Your task to perform on an android device: change notification settings in the gmail app Image 0: 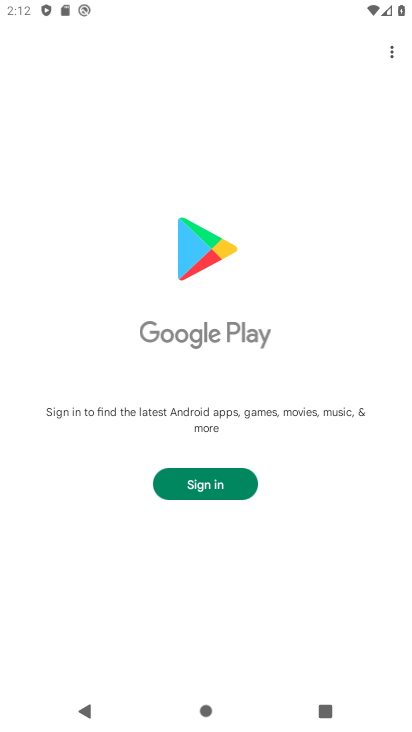
Step 0: press home button
Your task to perform on an android device: change notification settings in the gmail app Image 1: 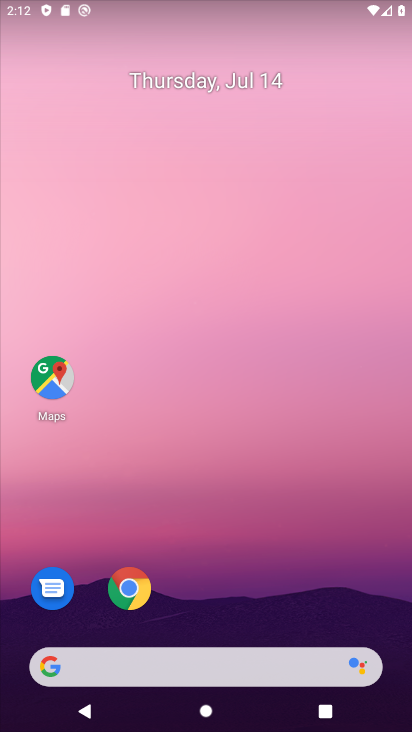
Step 1: drag from (227, 537) to (272, 27)
Your task to perform on an android device: change notification settings in the gmail app Image 2: 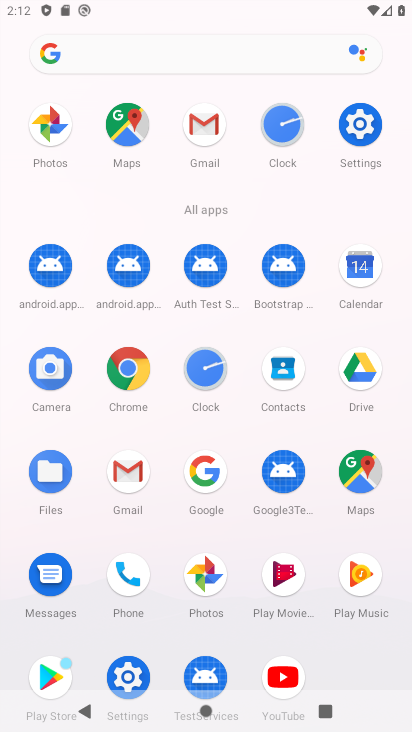
Step 2: click (212, 127)
Your task to perform on an android device: change notification settings in the gmail app Image 3: 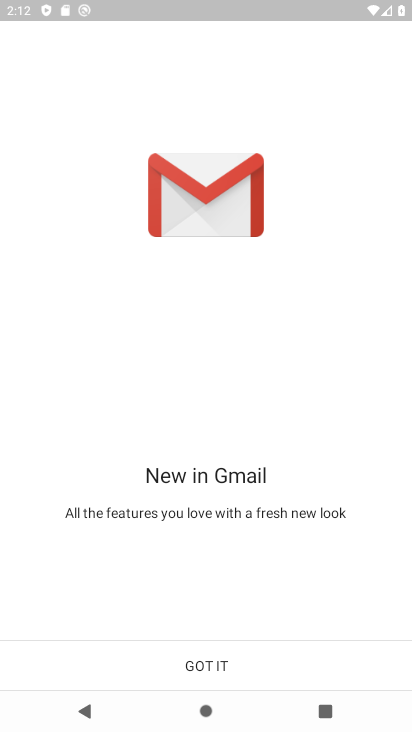
Step 3: click (213, 665)
Your task to perform on an android device: change notification settings in the gmail app Image 4: 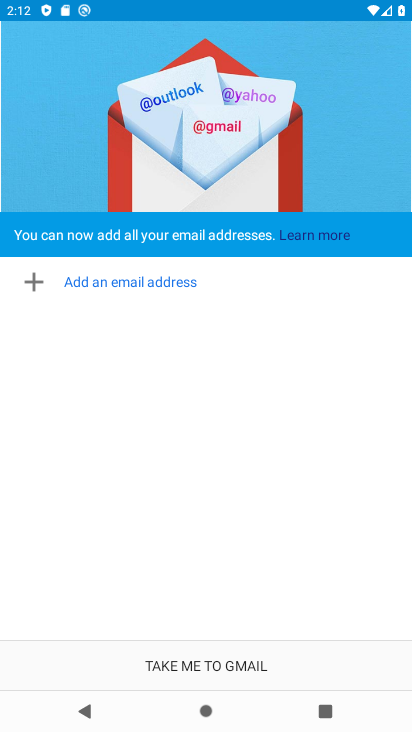
Step 4: click (215, 657)
Your task to perform on an android device: change notification settings in the gmail app Image 5: 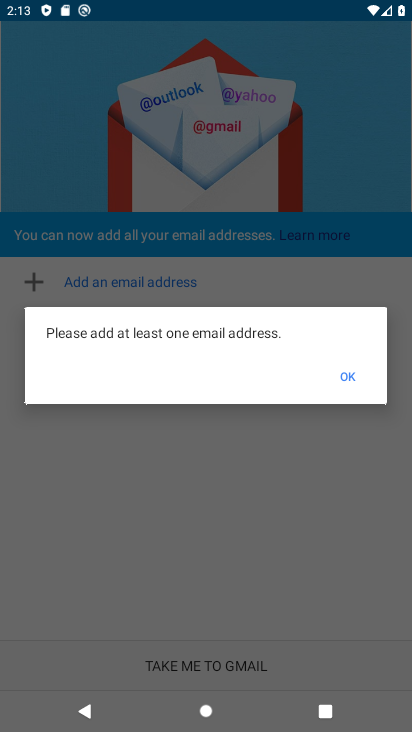
Step 5: click (353, 376)
Your task to perform on an android device: change notification settings in the gmail app Image 6: 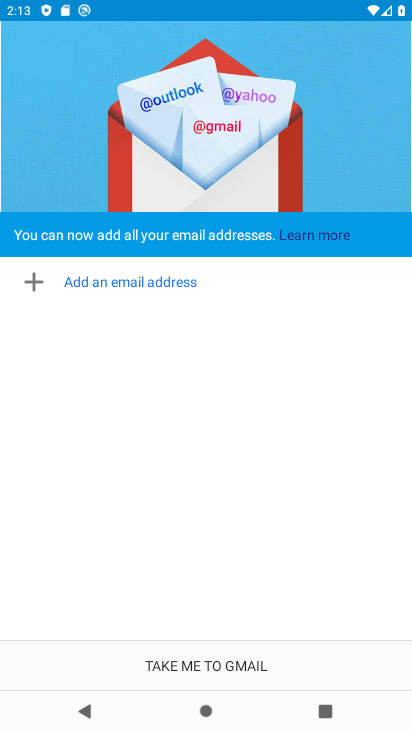
Step 6: click (222, 646)
Your task to perform on an android device: change notification settings in the gmail app Image 7: 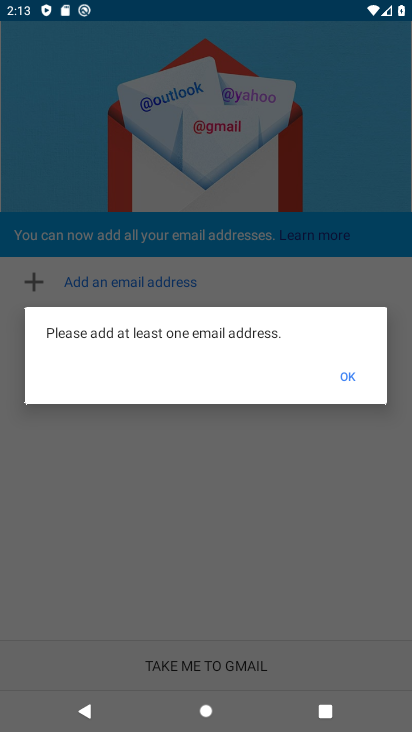
Step 7: task complete